Your task to perform on an android device: turn off javascript in the chrome app Image 0: 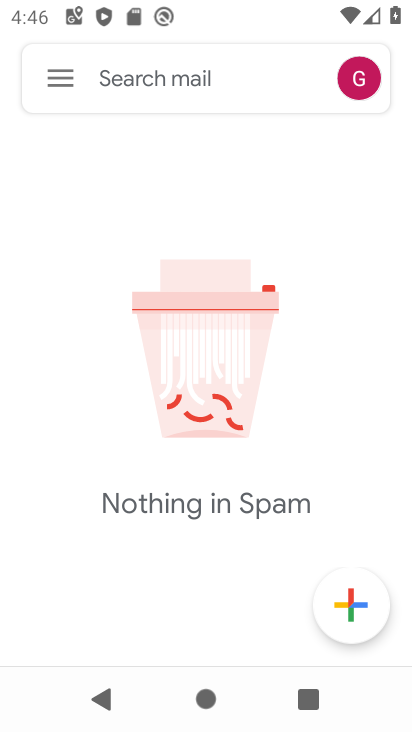
Step 0: press home button
Your task to perform on an android device: turn off javascript in the chrome app Image 1: 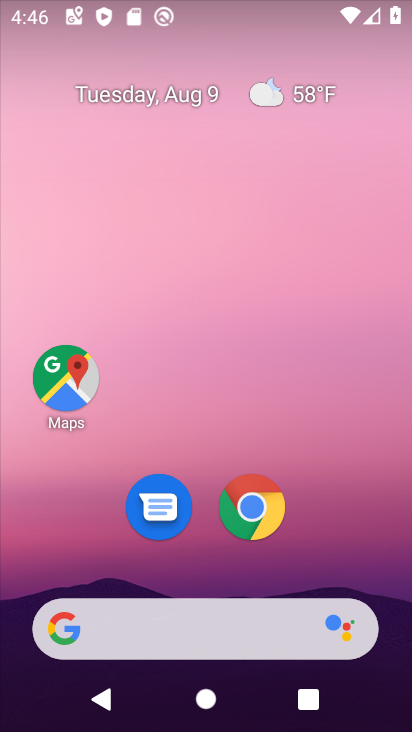
Step 1: click (256, 514)
Your task to perform on an android device: turn off javascript in the chrome app Image 2: 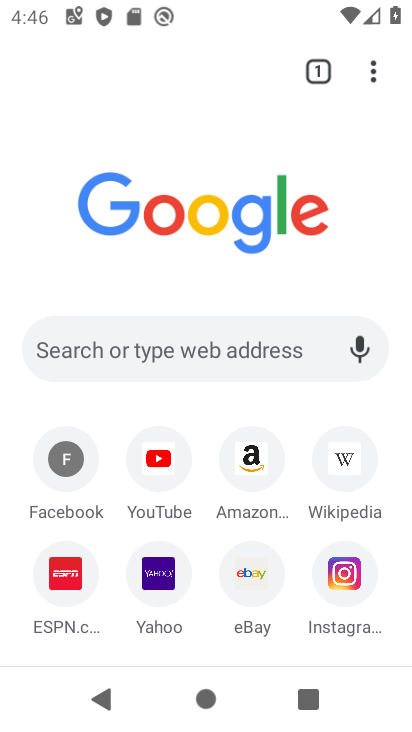
Step 2: click (375, 71)
Your task to perform on an android device: turn off javascript in the chrome app Image 3: 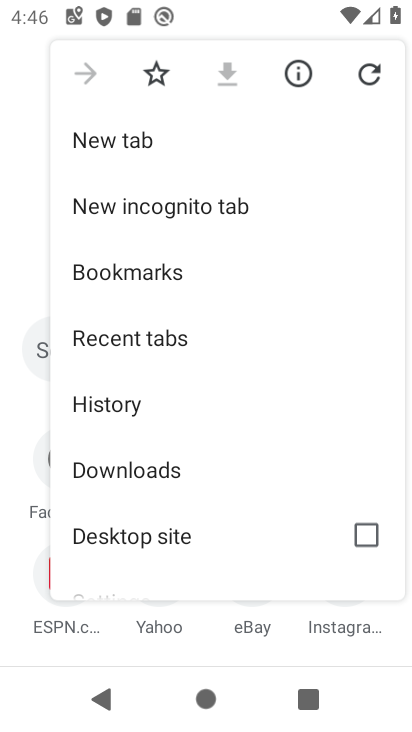
Step 3: drag from (191, 563) to (199, 205)
Your task to perform on an android device: turn off javascript in the chrome app Image 4: 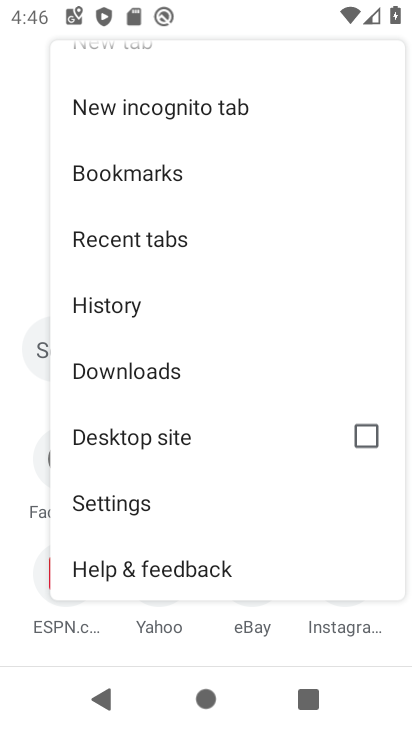
Step 4: click (140, 511)
Your task to perform on an android device: turn off javascript in the chrome app Image 5: 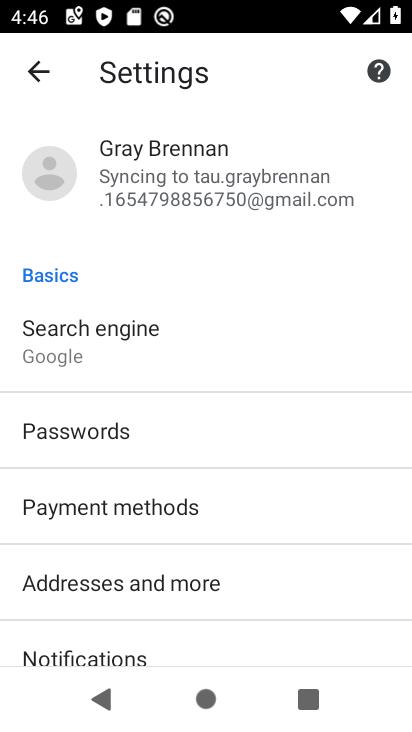
Step 5: drag from (143, 586) to (144, 196)
Your task to perform on an android device: turn off javascript in the chrome app Image 6: 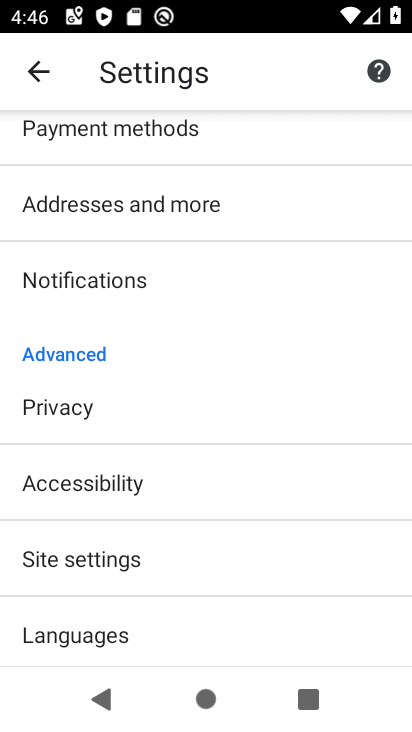
Step 6: click (136, 572)
Your task to perform on an android device: turn off javascript in the chrome app Image 7: 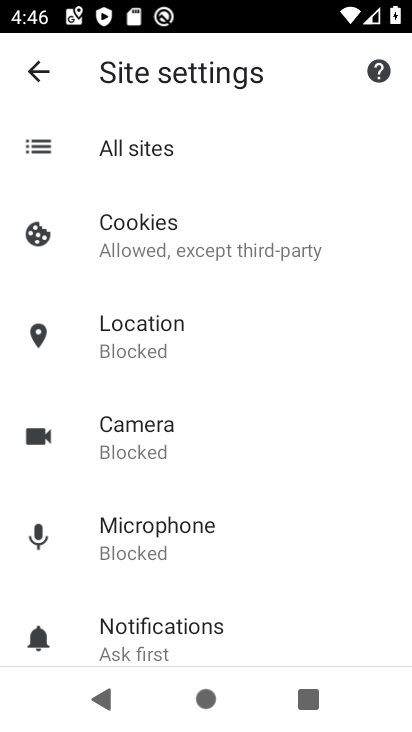
Step 7: drag from (212, 637) to (176, 107)
Your task to perform on an android device: turn off javascript in the chrome app Image 8: 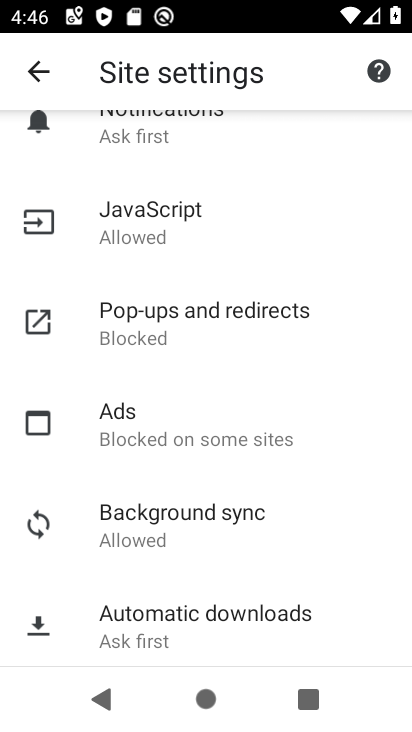
Step 8: click (157, 200)
Your task to perform on an android device: turn off javascript in the chrome app Image 9: 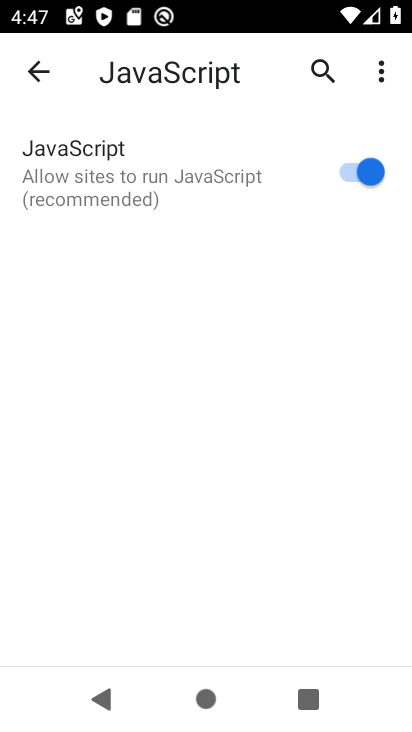
Step 9: click (379, 171)
Your task to perform on an android device: turn off javascript in the chrome app Image 10: 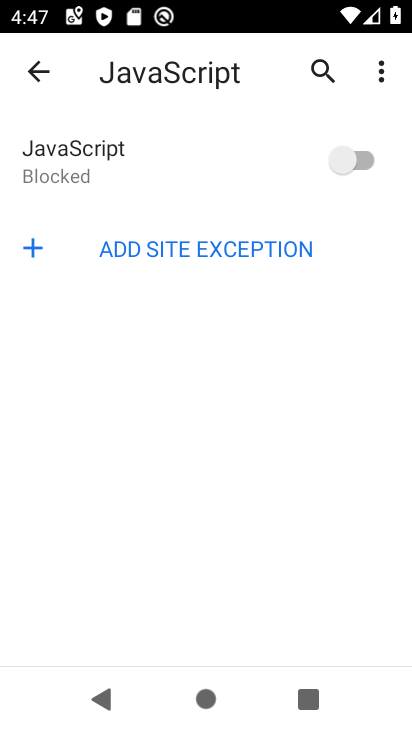
Step 10: task complete